Your task to perform on an android device: allow notifications from all sites in the chrome app Image 0: 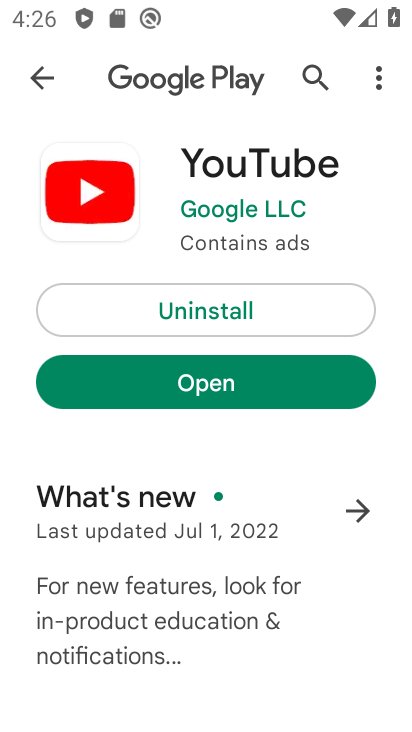
Step 0: press home button
Your task to perform on an android device: allow notifications from all sites in the chrome app Image 1: 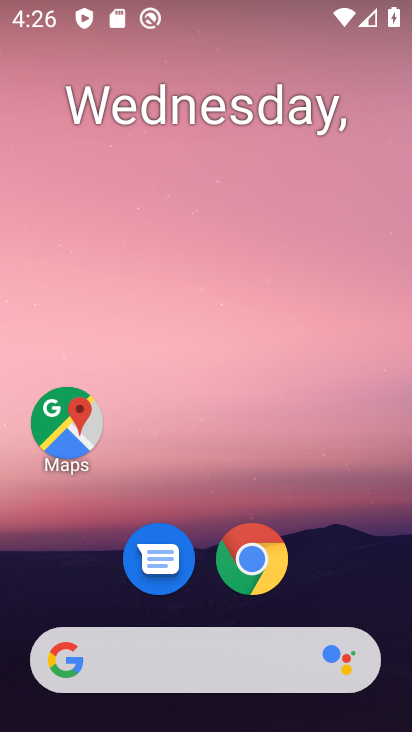
Step 1: click (278, 572)
Your task to perform on an android device: allow notifications from all sites in the chrome app Image 2: 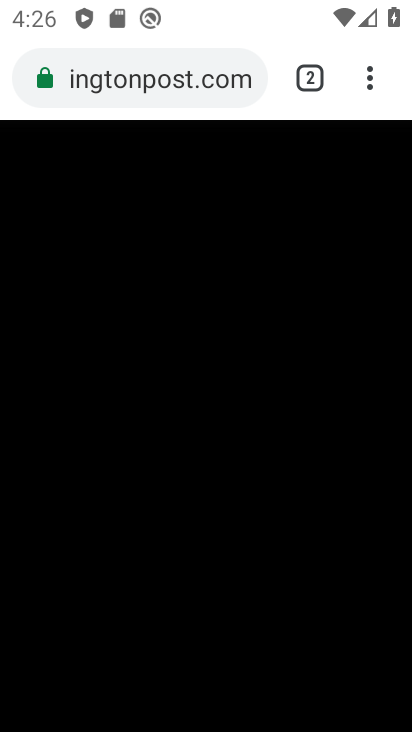
Step 2: click (377, 72)
Your task to perform on an android device: allow notifications from all sites in the chrome app Image 3: 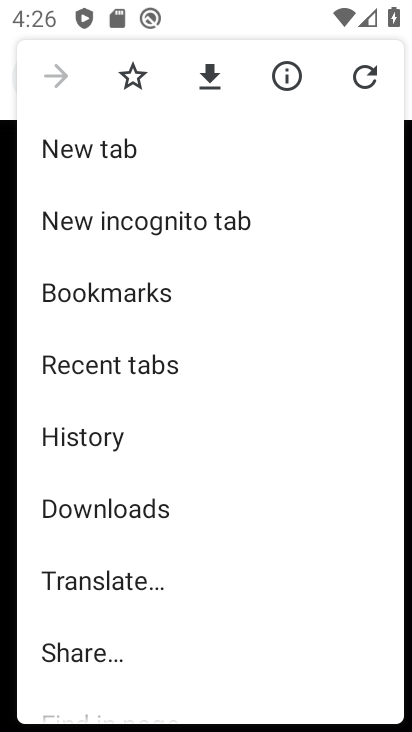
Step 3: drag from (207, 616) to (175, 252)
Your task to perform on an android device: allow notifications from all sites in the chrome app Image 4: 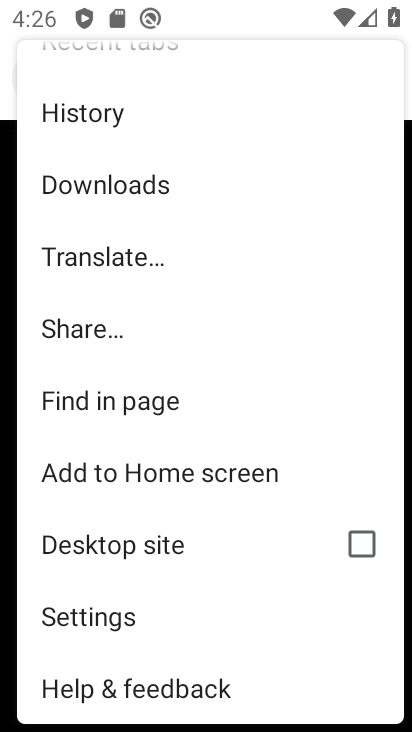
Step 4: click (182, 615)
Your task to perform on an android device: allow notifications from all sites in the chrome app Image 5: 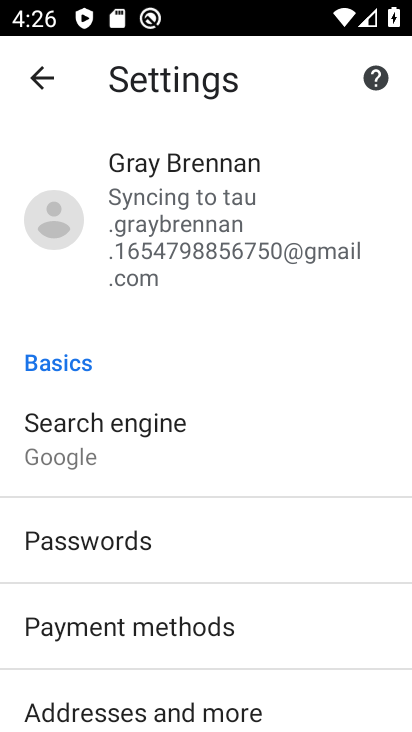
Step 5: drag from (282, 663) to (204, 270)
Your task to perform on an android device: allow notifications from all sites in the chrome app Image 6: 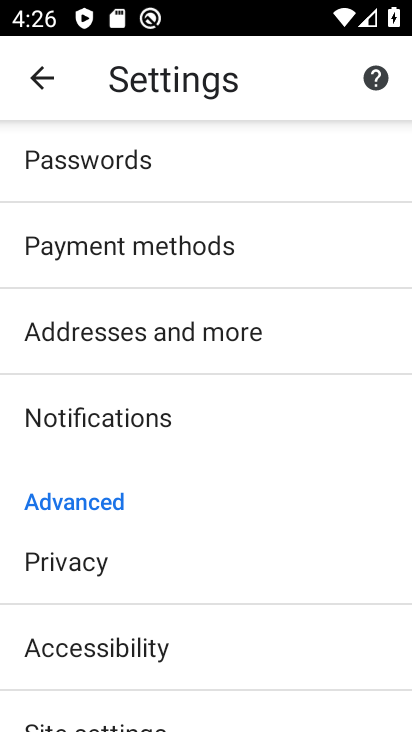
Step 6: drag from (221, 511) to (154, 145)
Your task to perform on an android device: allow notifications from all sites in the chrome app Image 7: 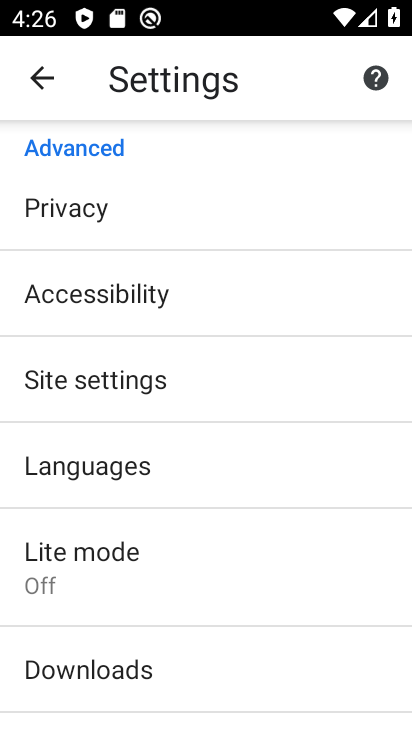
Step 7: click (181, 400)
Your task to perform on an android device: allow notifications from all sites in the chrome app Image 8: 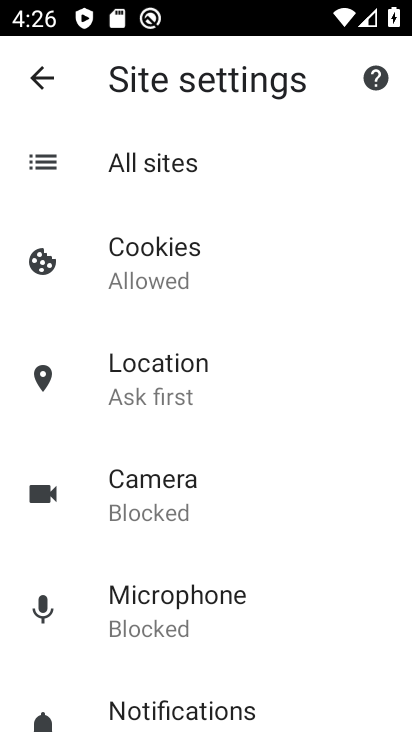
Step 8: drag from (256, 579) to (218, 211)
Your task to perform on an android device: allow notifications from all sites in the chrome app Image 9: 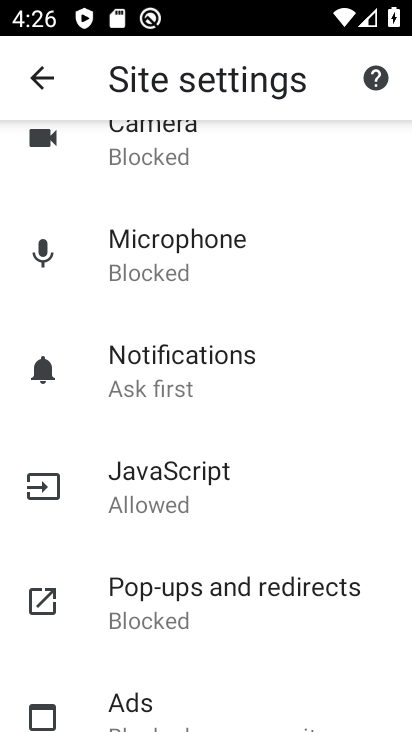
Step 9: click (237, 361)
Your task to perform on an android device: allow notifications from all sites in the chrome app Image 10: 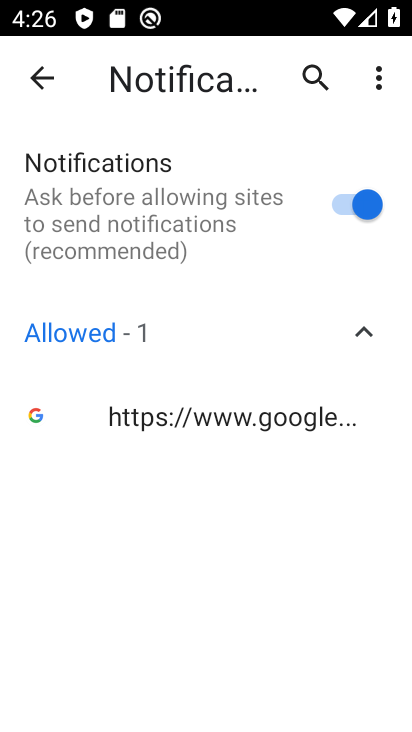
Step 10: task complete